Your task to perform on an android device: Go to privacy settings Image 0: 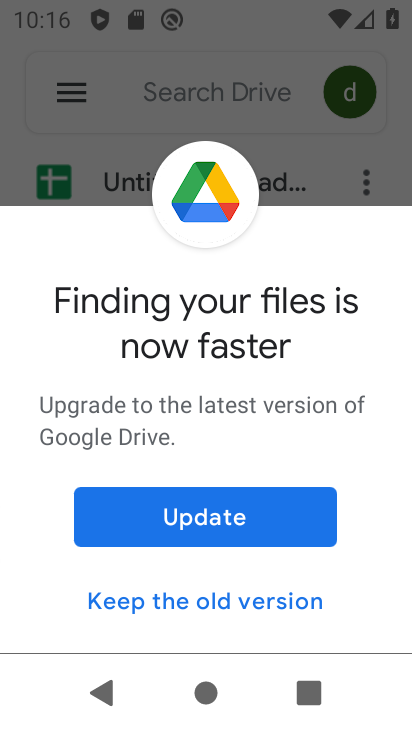
Step 0: press home button
Your task to perform on an android device: Go to privacy settings Image 1: 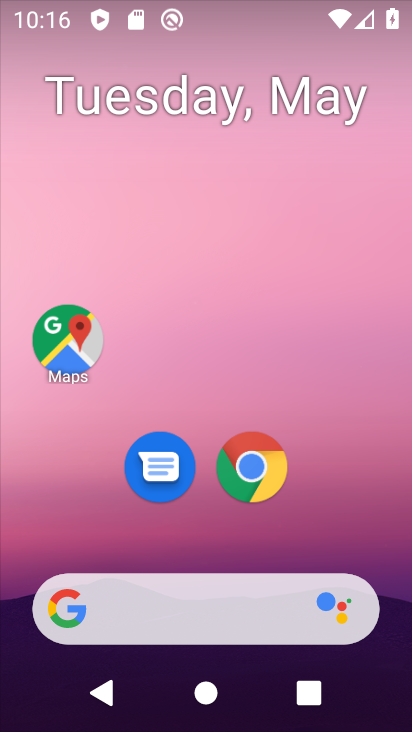
Step 1: drag from (187, 554) to (216, 230)
Your task to perform on an android device: Go to privacy settings Image 2: 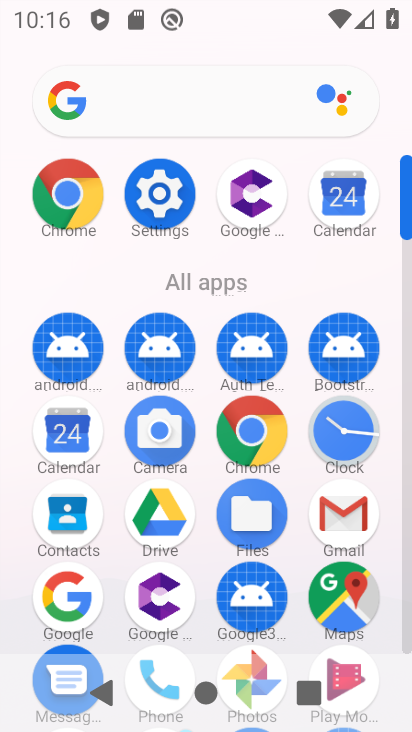
Step 2: click (151, 181)
Your task to perform on an android device: Go to privacy settings Image 3: 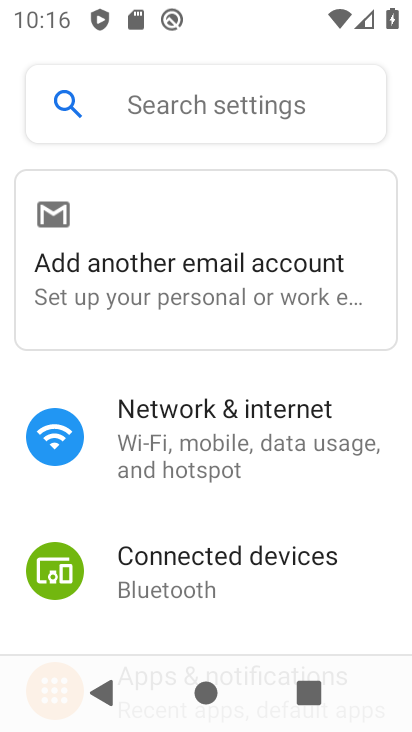
Step 3: drag from (221, 591) to (358, 67)
Your task to perform on an android device: Go to privacy settings Image 4: 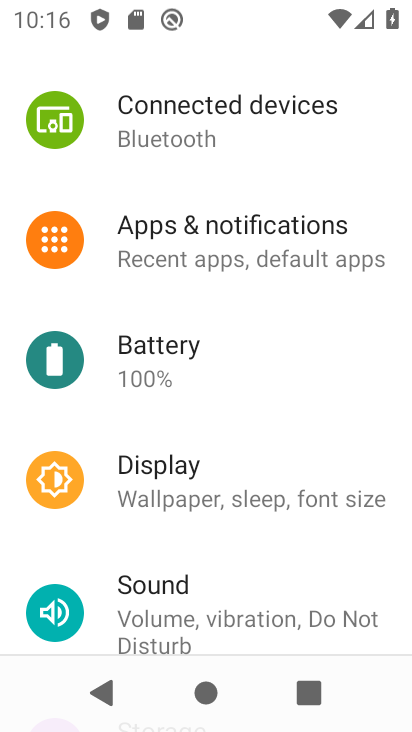
Step 4: drag from (177, 539) to (294, 174)
Your task to perform on an android device: Go to privacy settings Image 5: 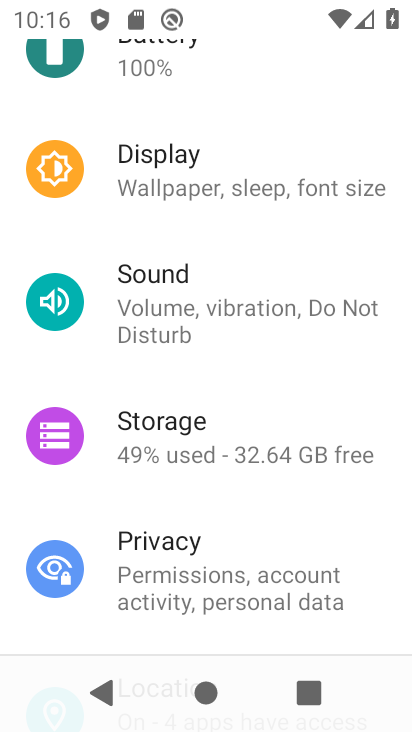
Step 5: click (184, 545)
Your task to perform on an android device: Go to privacy settings Image 6: 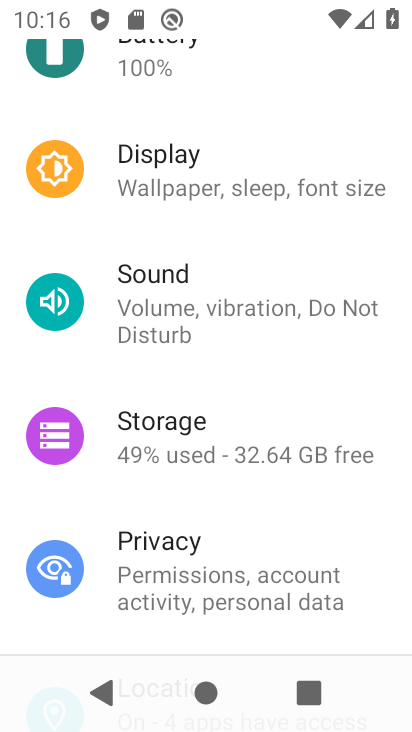
Step 6: drag from (188, 535) to (285, 29)
Your task to perform on an android device: Go to privacy settings Image 7: 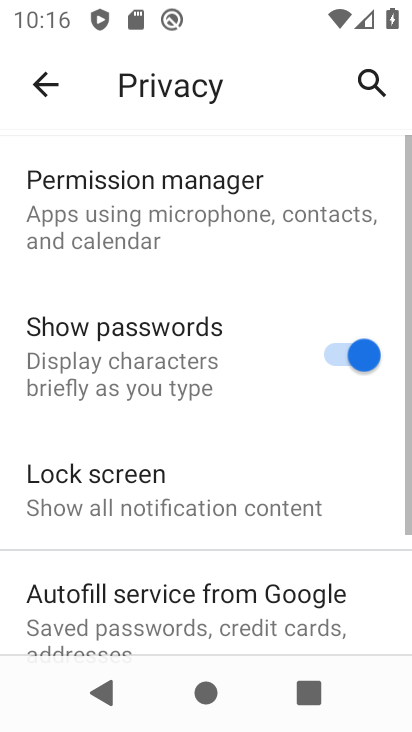
Step 7: drag from (235, 480) to (295, 76)
Your task to perform on an android device: Go to privacy settings Image 8: 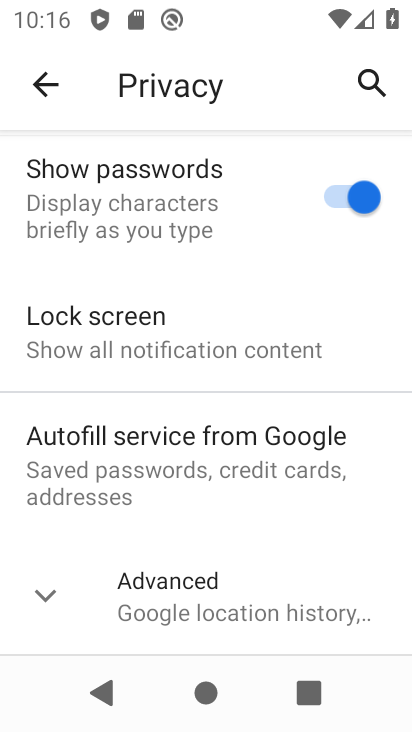
Step 8: drag from (205, 517) to (289, 174)
Your task to perform on an android device: Go to privacy settings Image 9: 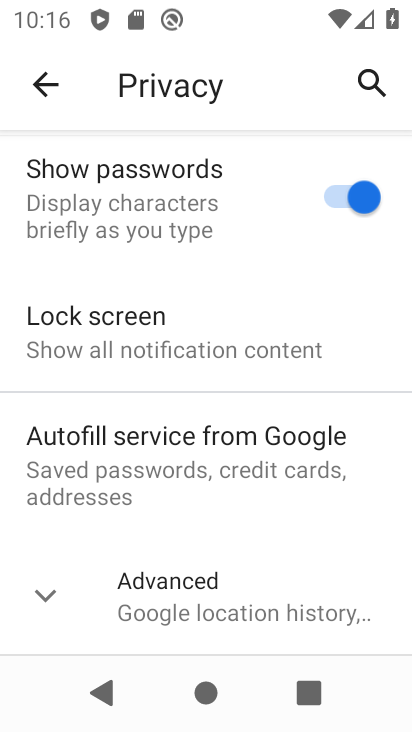
Step 9: click (146, 583)
Your task to perform on an android device: Go to privacy settings Image 10: 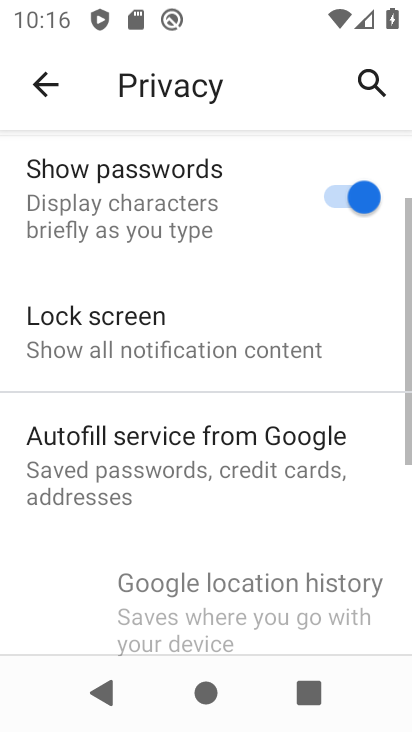
Step 10: task complete